Your task to perform on an android device: Open Google Maps Image 0: 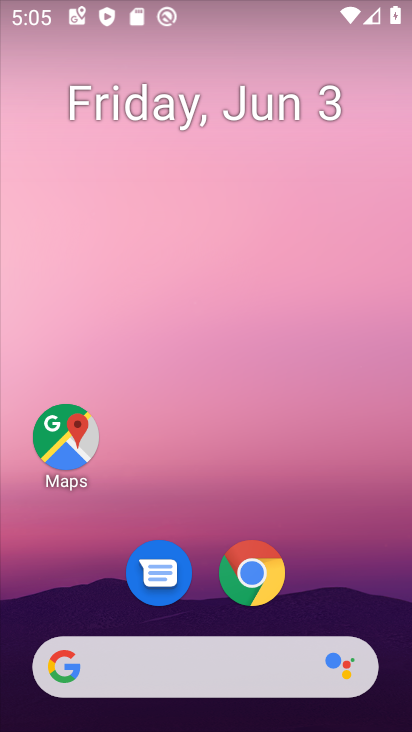
Step 0: drag from (199, 592) to (205, 265)
Your task to perform on an android device: Open Google Maps Image 1: 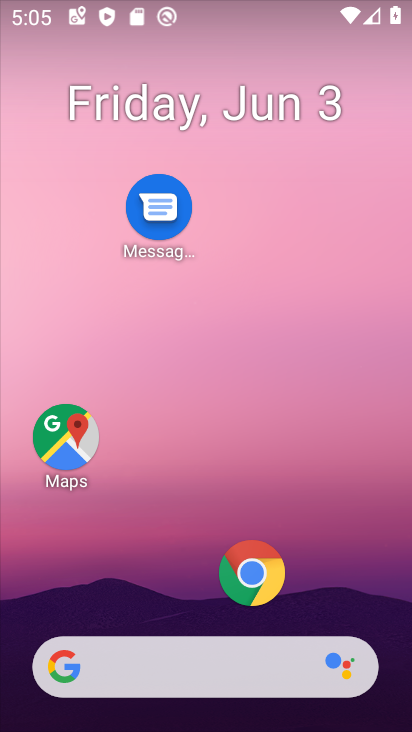
Step 1: click (73, 453)
Your task to perform on an android device: Open Google Maps Image 2: 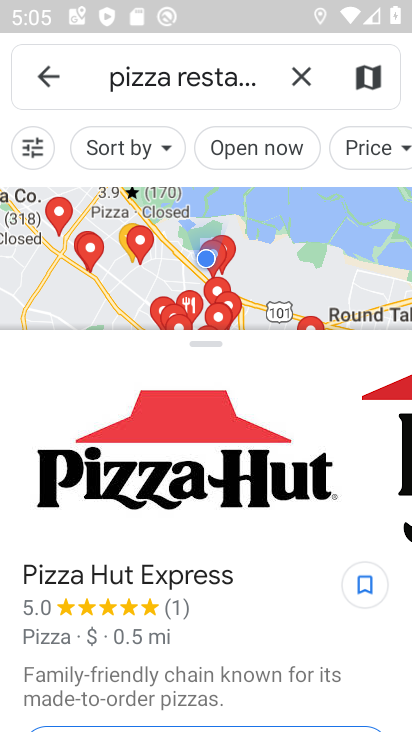
Step 2: task complete